Your task to perform on an android device: turn on location history Image 0: 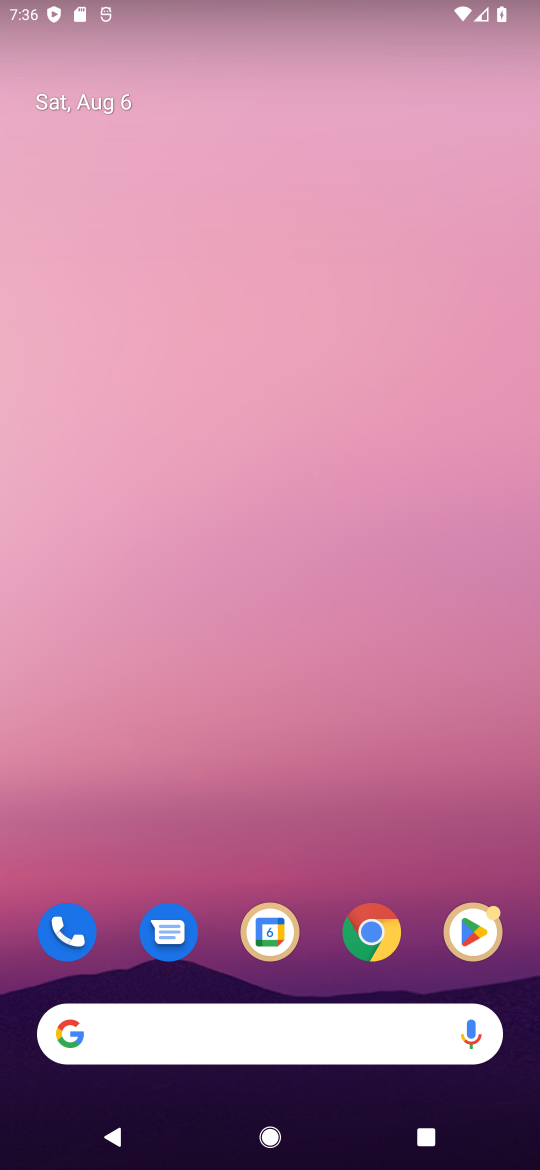
Step 0: drag from (306, 1038) to (197, 260)
Your task to perform on an android device: turn on location history Image 1: 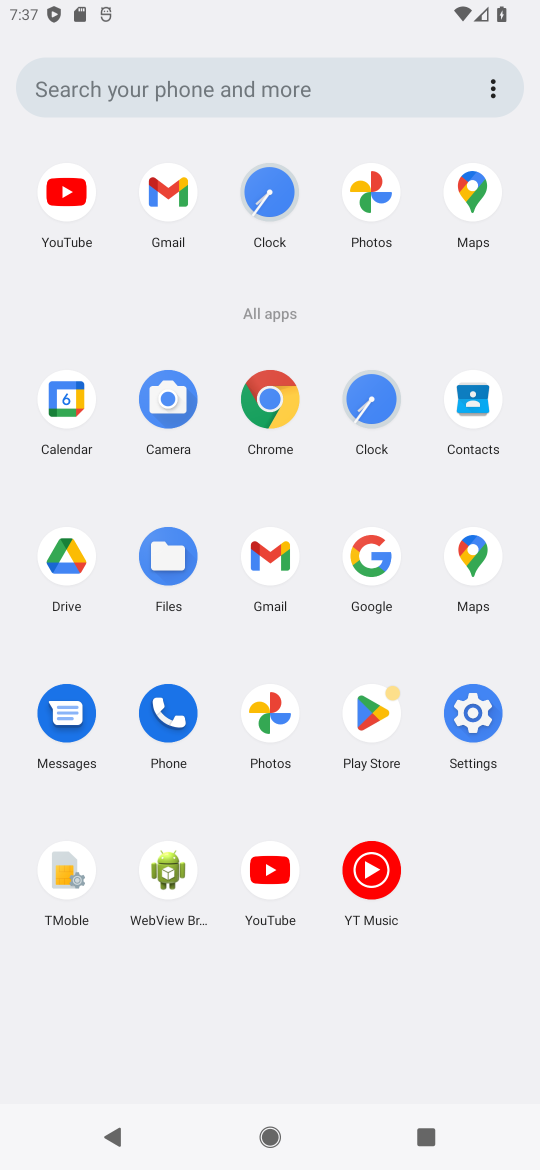
Step 1: click (481, 711)
Your task to perform on an android device: turn on location history Image 2: 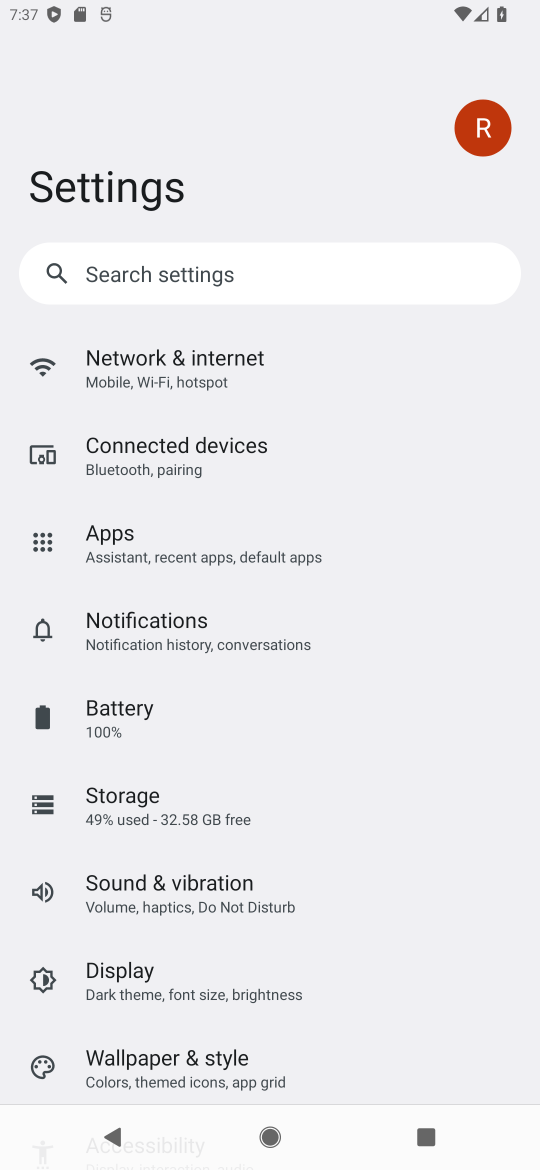
Step 2: drag from (351, 931) to (407, 317)
Your task to perform on an android device: turn on location history Image 3: 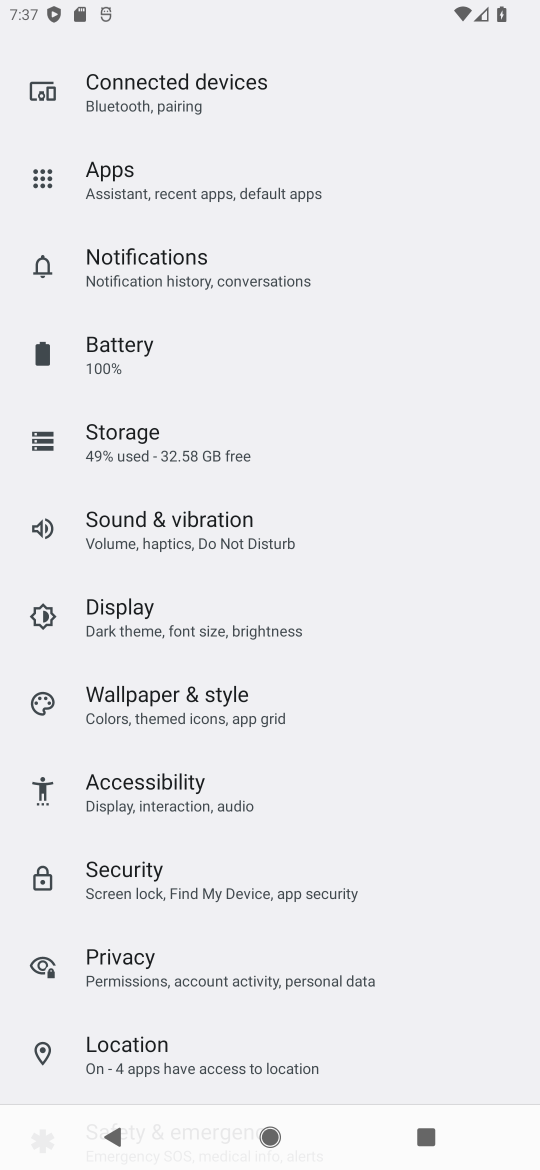
Step 3: click (197, 1048)
Your task to perform on an android device: turn on location history Image 4: 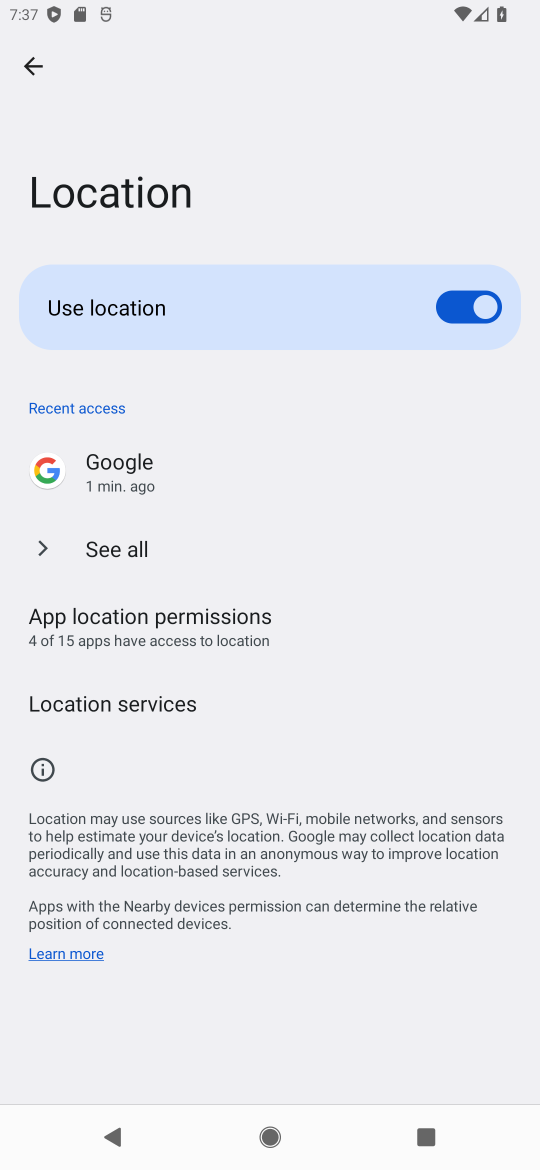
Step 4: click (170, 698)
Your task to perform on an android device: turn on location history Image 5: 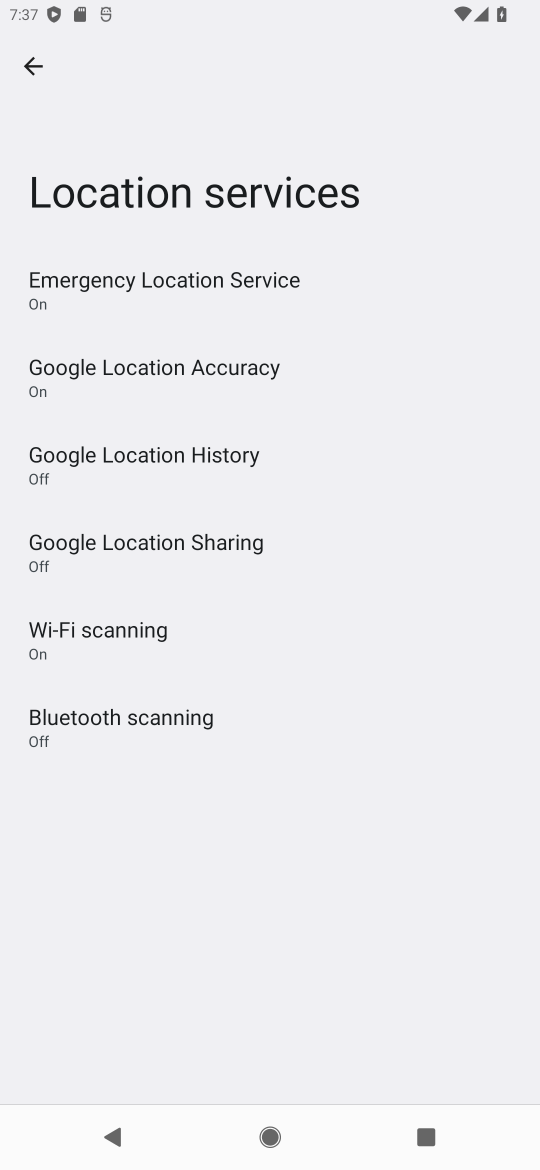
Step 5: click (202, 451)
Your task to perform on an android device: turn on location history Image 6: 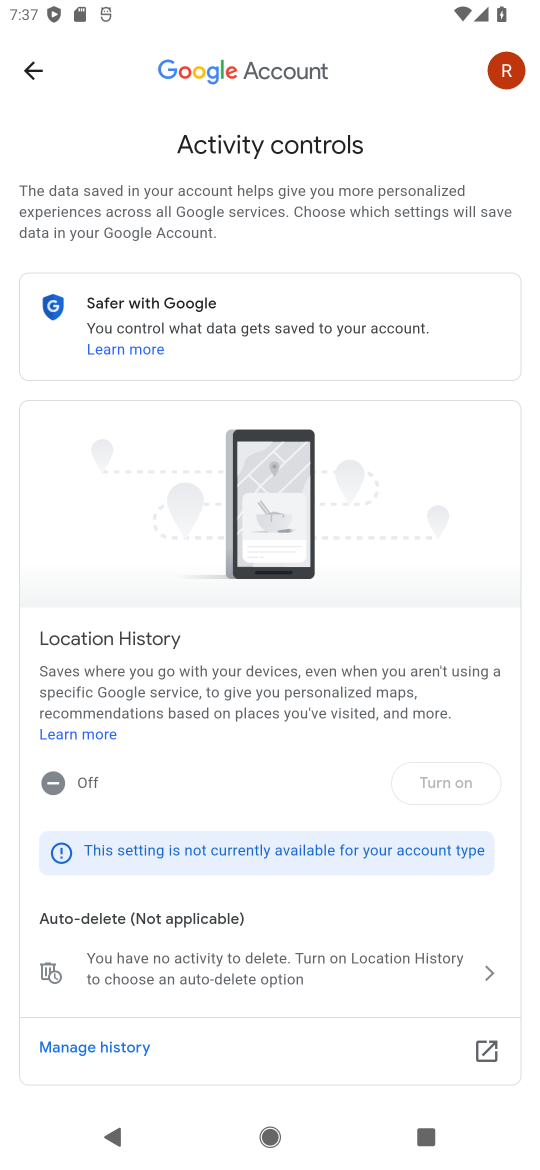
Step 6: task complete